Your task to perform on an android device: delete the emails in spam in the gmail app Image 0: 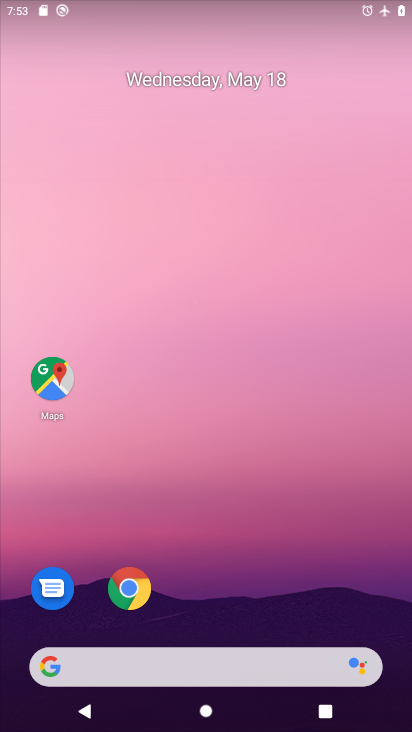
Step 0: drag from (217, 623) to (312, 181)
Your task to perform on an android device: delete the emails in spam in the gmail app Image 1: 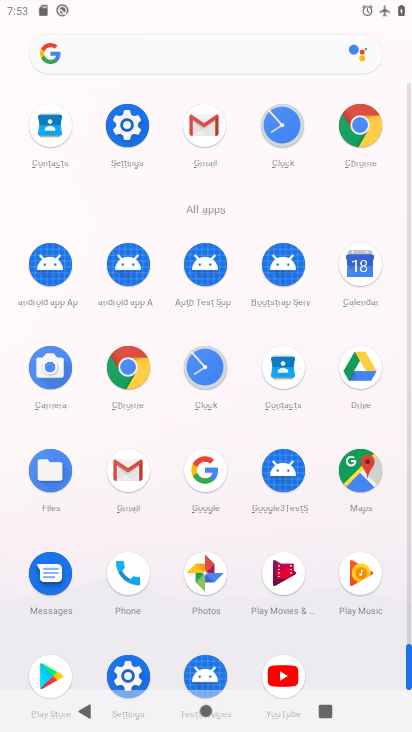
Step 1: click (130, 483)
Your task to perform on an android device: delete the emails in spam in the gmail app Image 2: 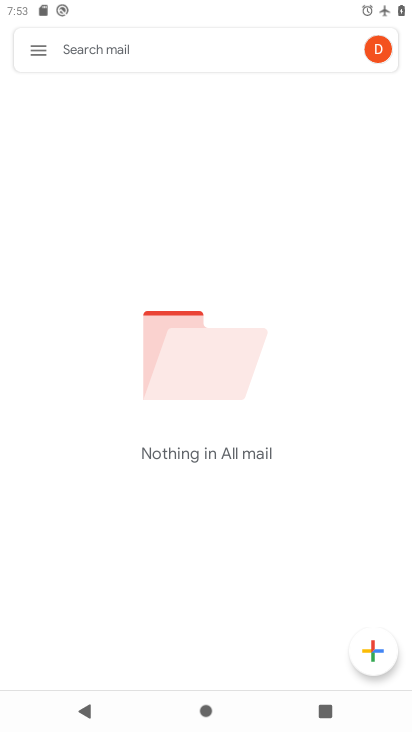
Step 2: click (44, 53)
Your task to perform on an android device: delete the emails in spam in the gmail app Image 3: 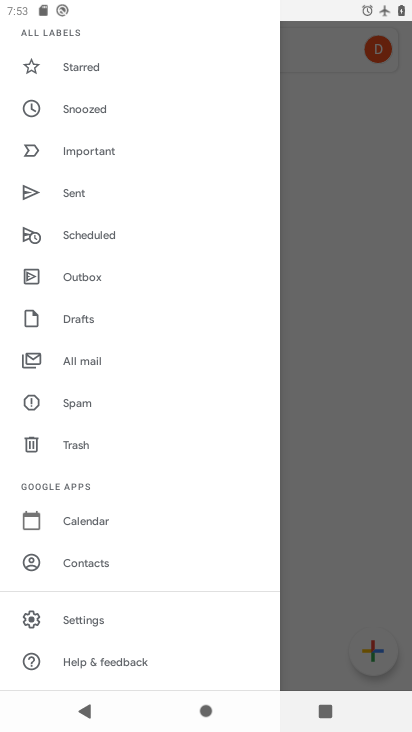
Step 3: click (84, 403)
Your task to perform on an android device: delete the emails in spam in the gmail app Image 4: 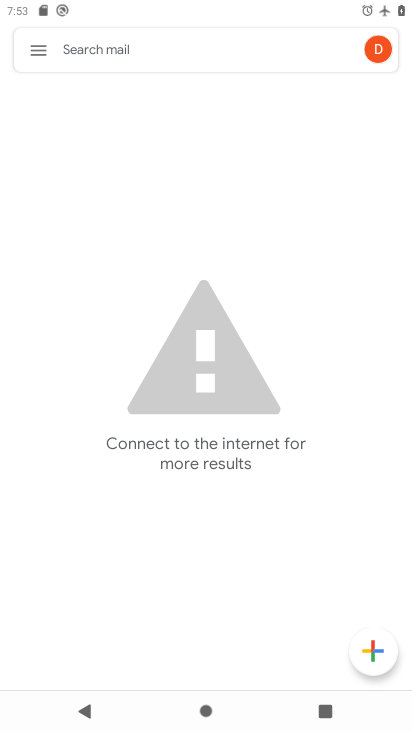
Step 4: task complete